Your task to perform on an android device: turn off javascript in the chrome app Image 0: 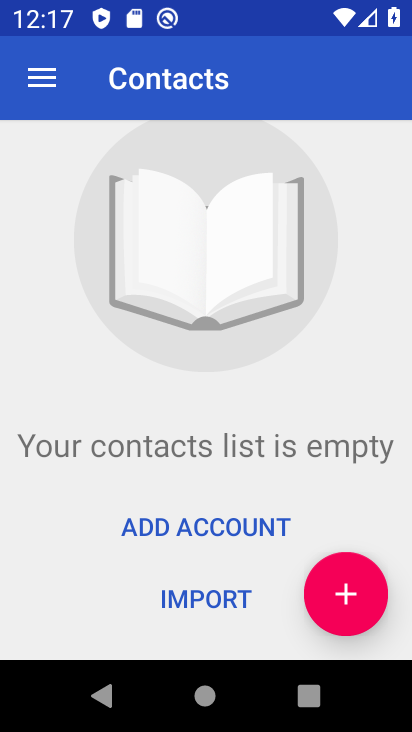
Step 0: press home button
Your task to perform on an android device: turn off javascript in the chrome app Image 1: 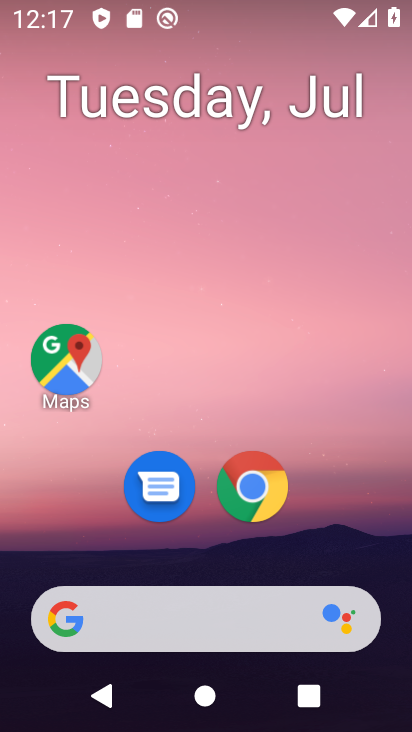
Step 1: drag from (351, 534) to (354, 72)
Your task to perform on an android device: turn off javascript in the chrome app Image 2: 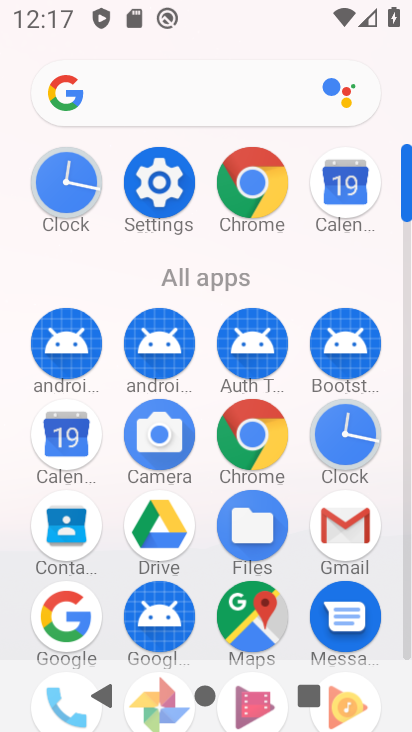
Step 2: click (264, 435)
Your task to perform on an android device: turn off javascript in the chrome app Image 3: 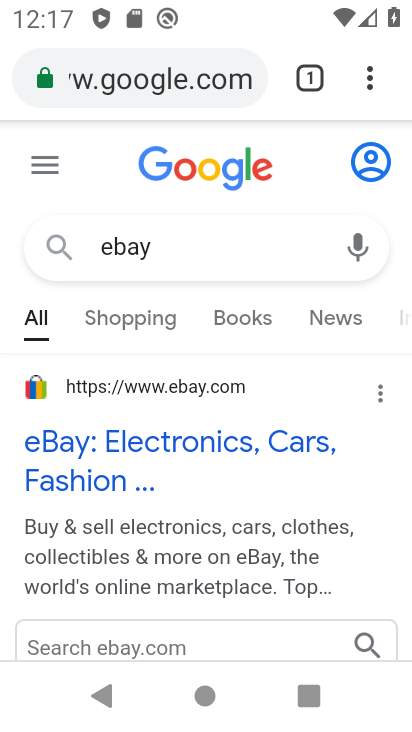
Step 3: click (369, 88)
Your task to perform on an android device: turn off javascript in the chrome app Image 4: 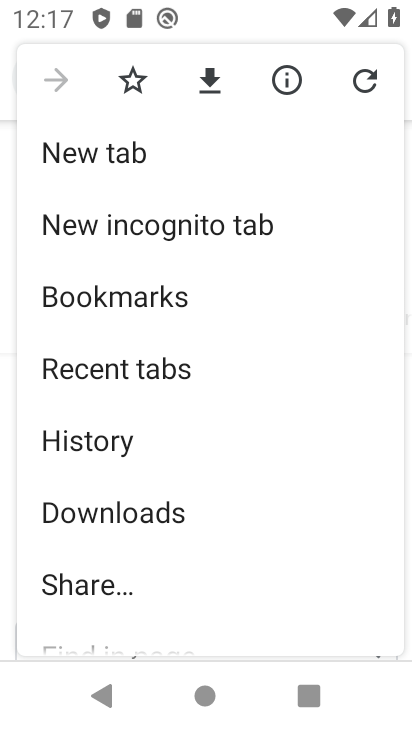
Step 4: drag from (342, 430) to (344, 320)
Your task to perform on an android device: turn off javascript in the chrome app Image 5: 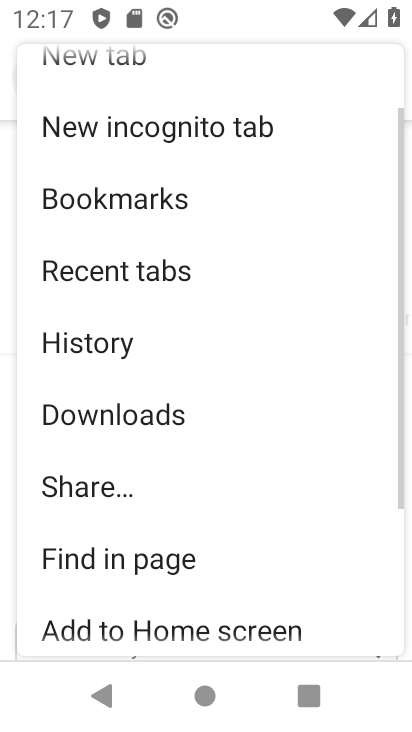
Step 5: drag from (322, 527) to (327, 392)
Your task to perform on an android device: turn off javascript in the chrome app Image 6: 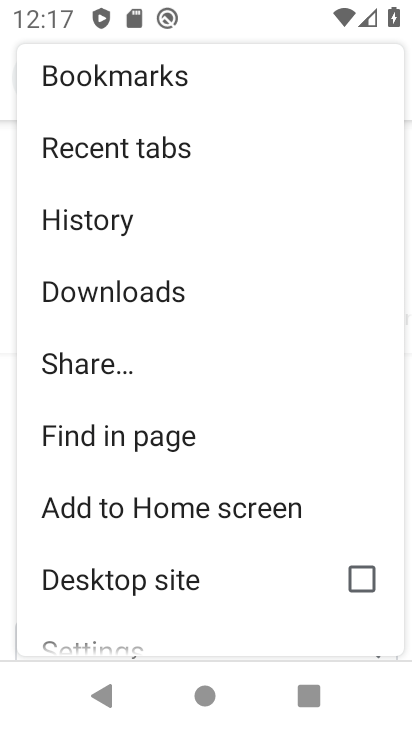
Step 6: drag from (300, 550) to (313, 414)
Your task to perform on an android device: turn off javascript in the chrome app Image 7: 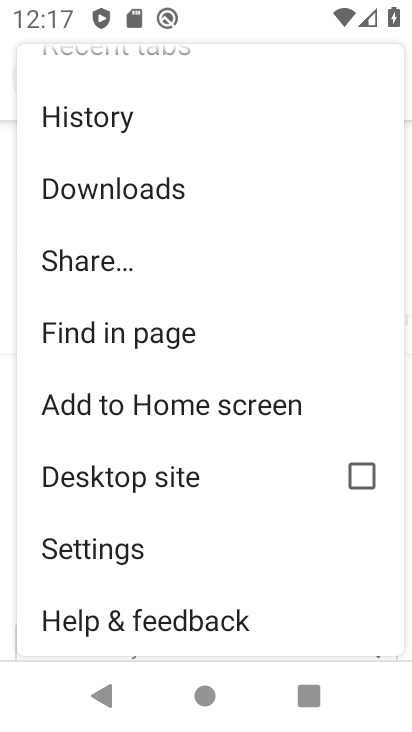
Step 7: click (159, 570)
Your task to perform on an android device: turn off javascript in the chrome app Image 8: 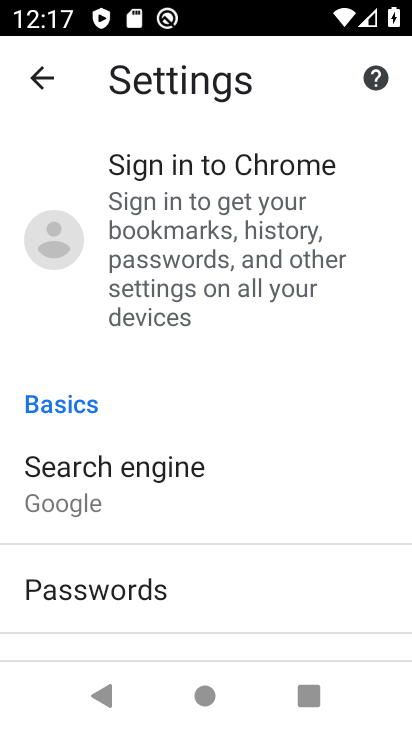
Step 8: drag from (317, 559) to (317, 424)
Your task to perform on an android device: turn off javascript in the chrome app Image 9: 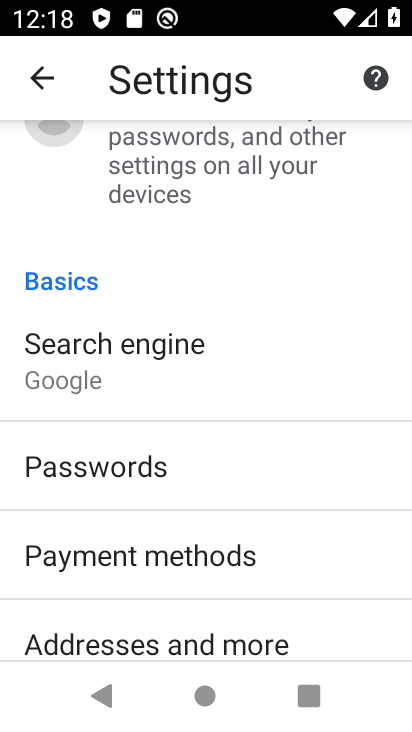
Step 9: drag from (314, 540) to (316, 411)
Your task to perform on an android device: turn off javascript in the chrome app Image 10: 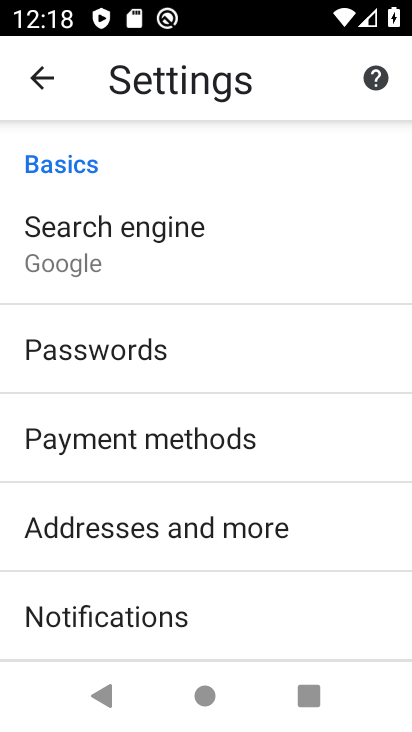
Step 10: drag from (336, 566) to (340, 444)
Your task to perform on an android device: turn off javascript in the chrome app Image 11: 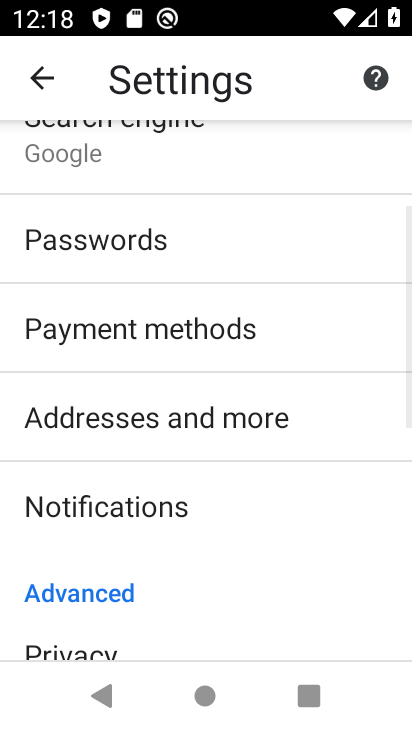
Step 11: drag from (324, 561) to (326, 425)
Your task to perform on an android device: turn off javascript in the chrome app Image 12: 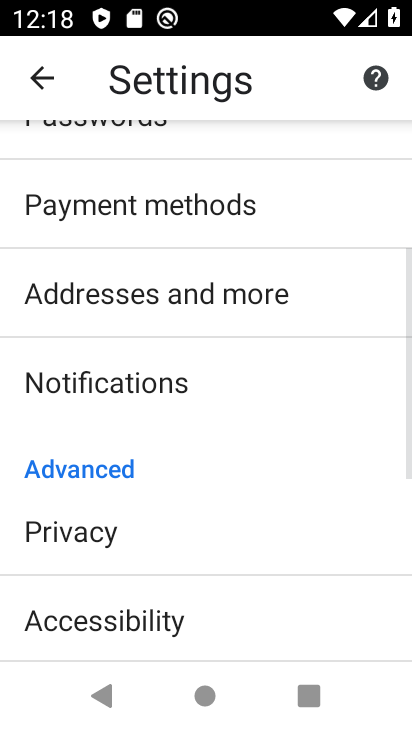
Step 12: drag from (330, 586) to (334, 434)
Your task to perform on an android device: turn off javascript in the chrome app Image 13: 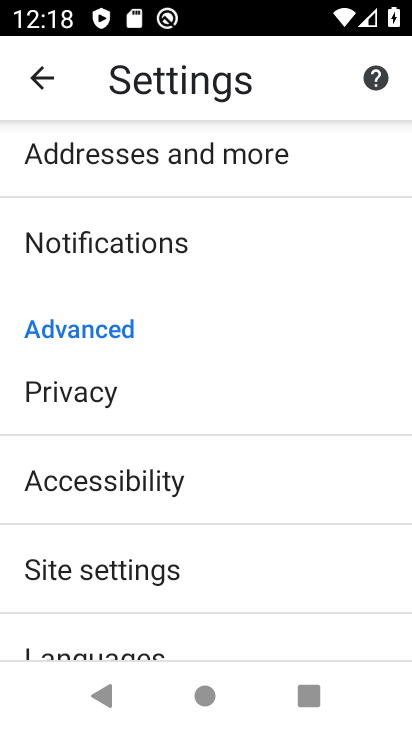
Step 13: drag from (347, 554) to (347, 421)
Your task to perform on an android device: turn off javascript in the chrome app Image 14: 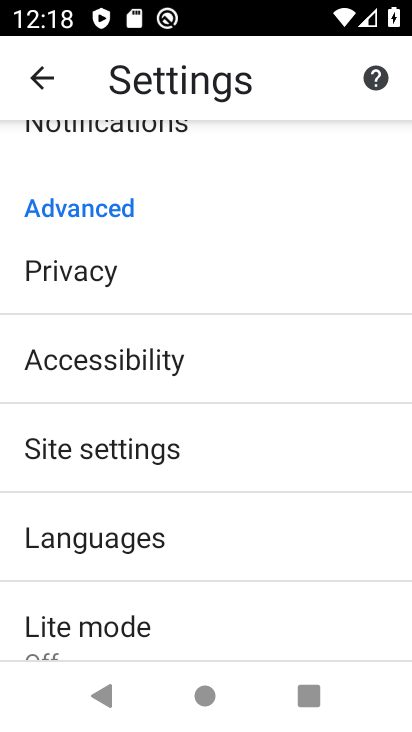
Step 14: click (316, 453)
Your task to perform on an android device: turn off javascript in the chrome app Image 15: 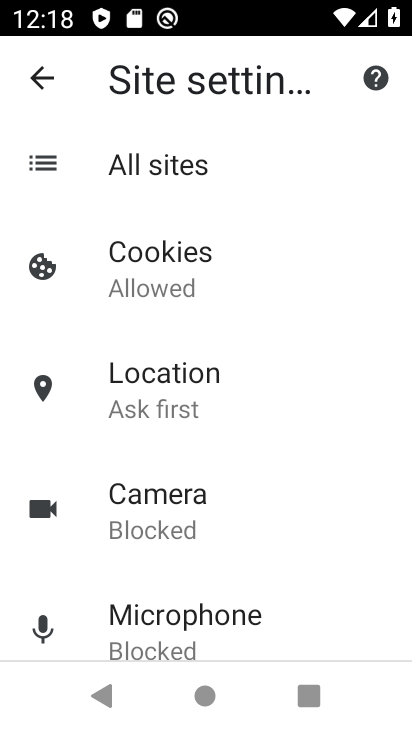
Step 15: drag from (278, 497) to (288, 372)
Your task to perform on an android device: turn off javascript in the chrome app Image 16: 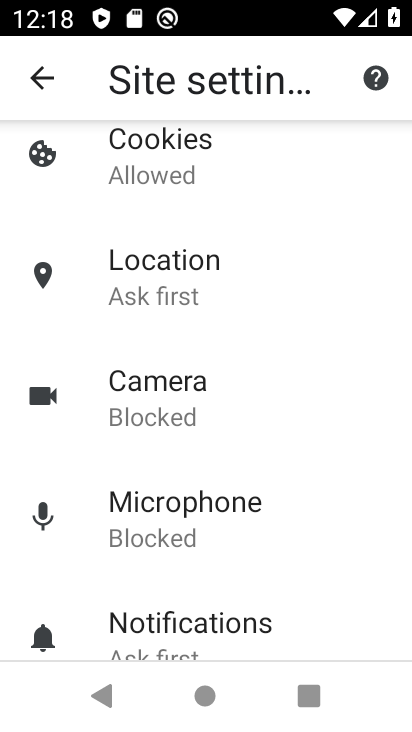
Step 16: drag from (292, 507) to (303, 421)
Your task to perform on an android device: turn off javascript in the chrome app Image 17: 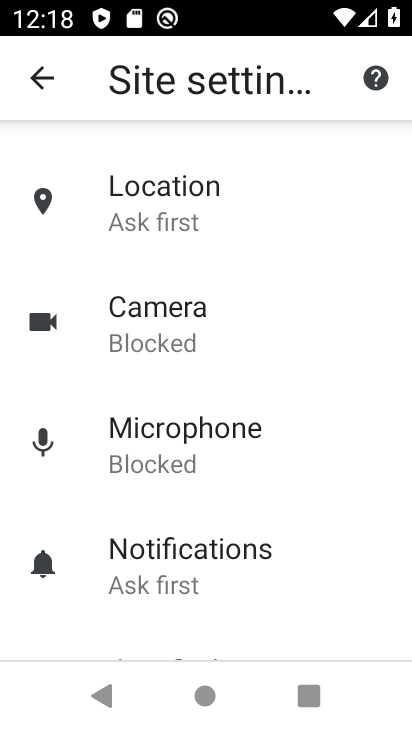
Step 17: drag from (304, 521) to (317, 421)
Your task to perform on an android device: turn off javascript in the chrome app Image 18: 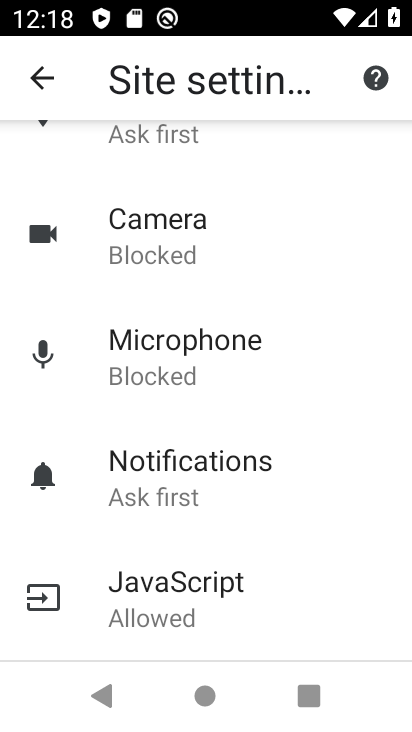
Step 18: drag from (307, 512) to (318, 402)
Your task to perform on an android device: turn off javascript in the chrome app Image 19: 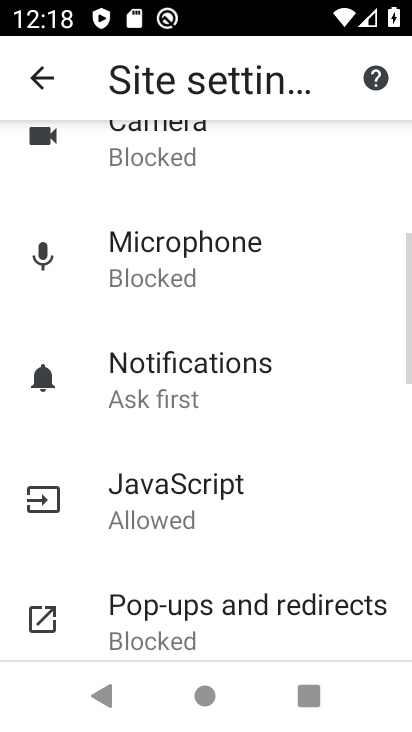
Step 19: drag from (311, 511) to (331, 393)
Your task to perform on an android device: turn off javascript in the chrome app Image 20: 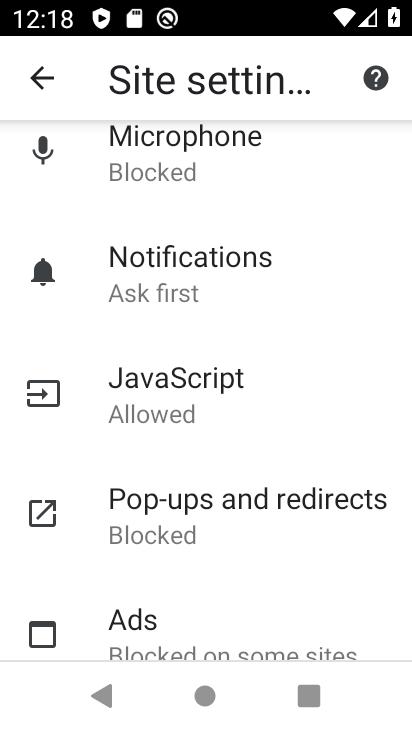
Step 20: click (269, 404)
Your task to perform on an android device: turn off javascript in the chrome app Image 21: 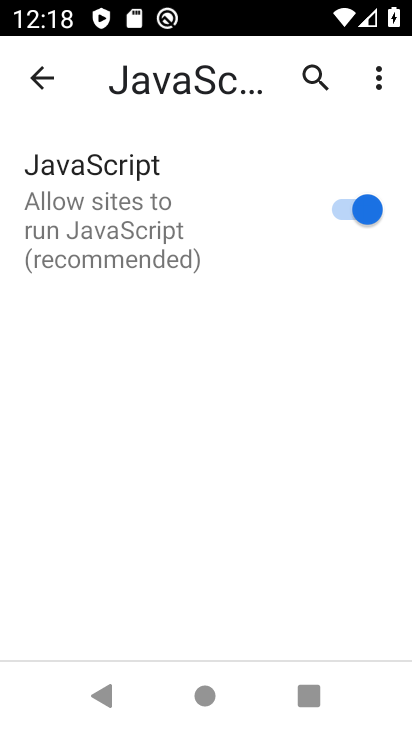
Step 21: click (351, 218)
Your task to perform on an android device: turn off javascript in the chrome app Image 22: 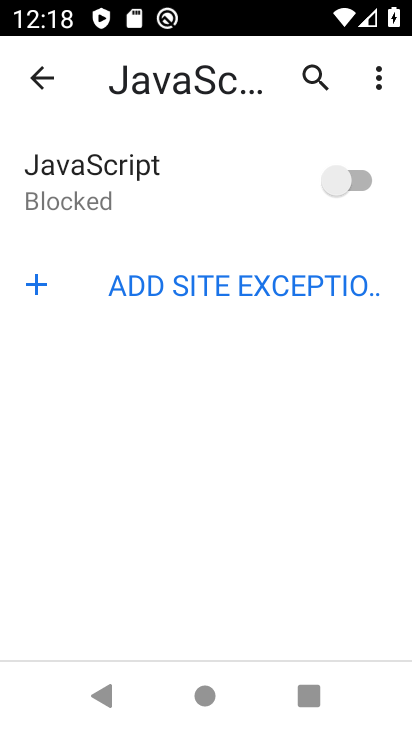
Step 22: task complete